Your task to perform on an android device: Open Maps and search for coffee Image 0: 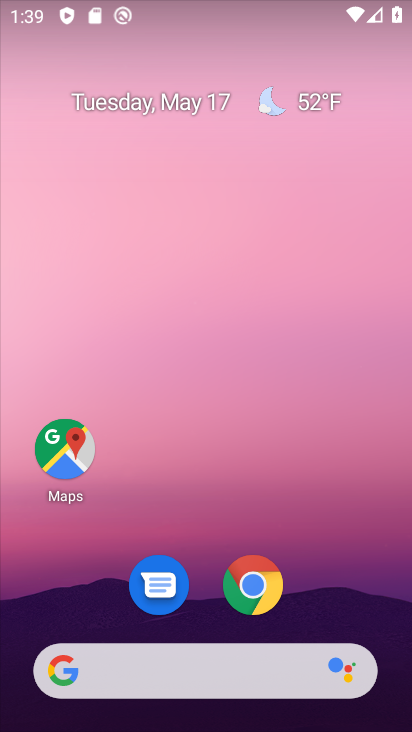
Step 0: click (65, 449)
Your task to perform on an android device: Open Maps and search for coffee Image 1: 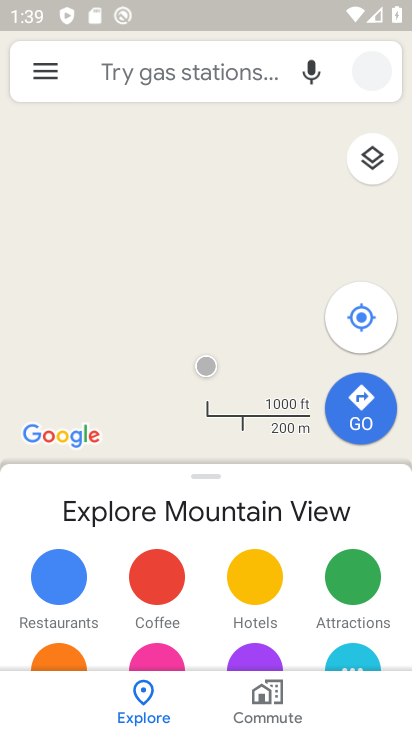
Step 1: click (218, 67)
Your task to perform on an android device: Open Maps and search for coffee Image 2: 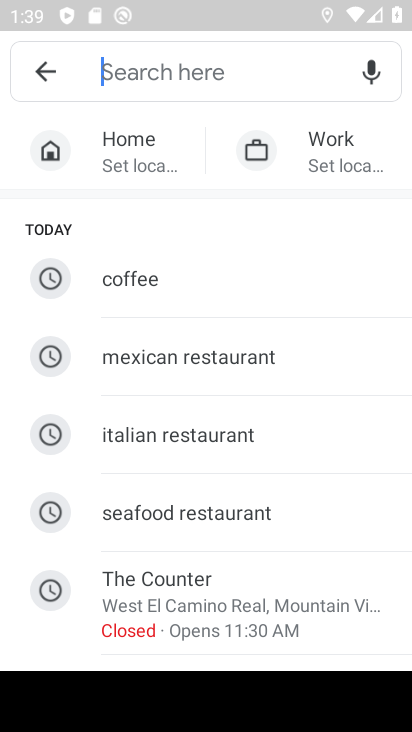
Step 2: click (167, 272)
Your task to perform on an android device: Open Maps and search for coffee Image 3: 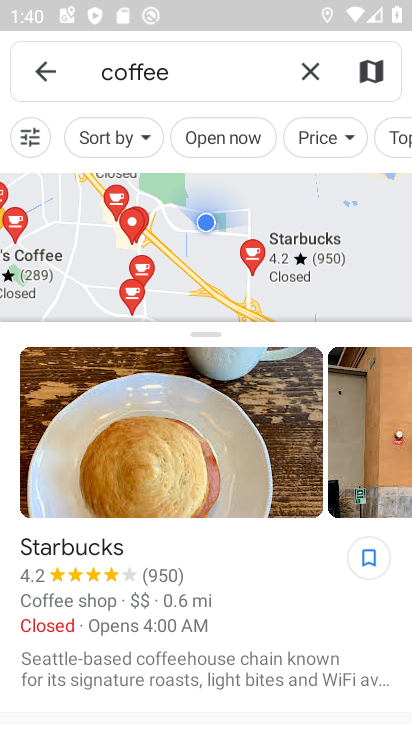
Step 3: task complete